Your task to perform on an android device: Open privacy settings Image 0: 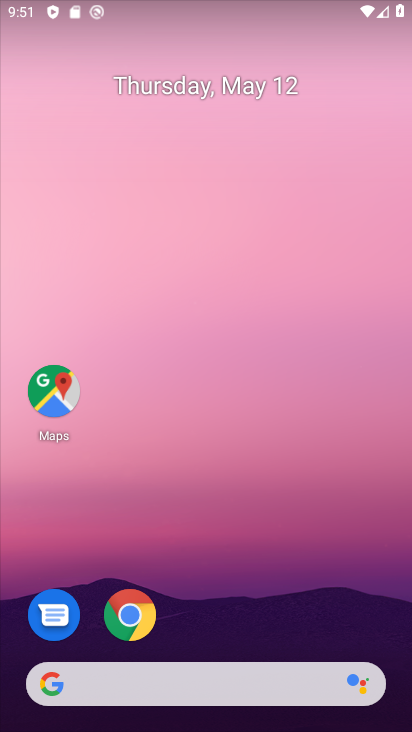
Step 0: drag from (226, 724) to (226, 44)
Your task to perform on an android device: Open privacy settings Image 1: 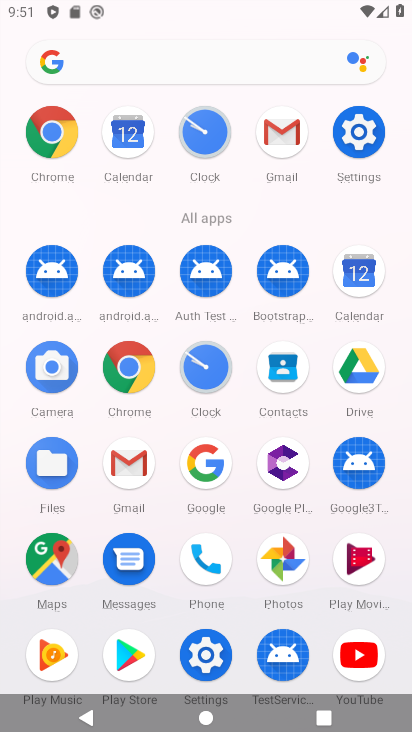
Step 1: click (362, 128)
Your task to perform on an android device: Open privacy settings Image 2: 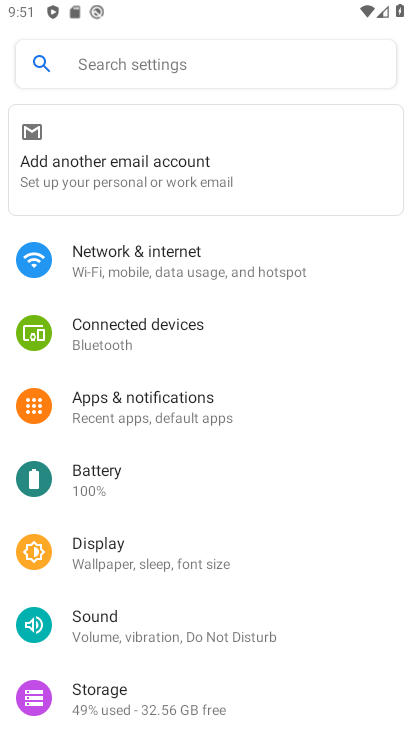
Step 2: drag from (211, 673) to (255, 236)
Your task to perform on an android device: Open privacy settings Image 3: 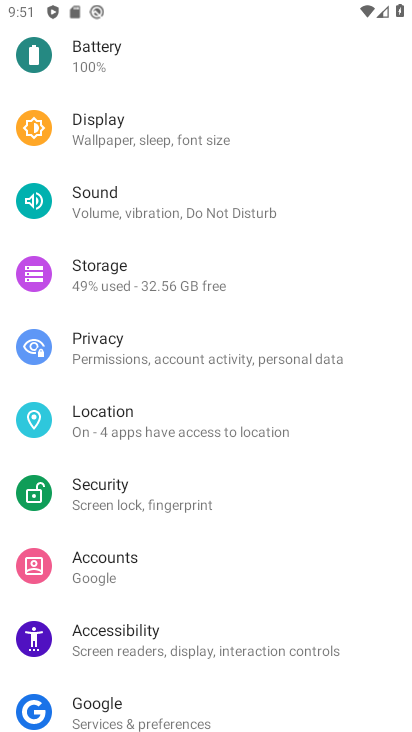
Step 3: click (115, 357)
Your task to perform on an android device: Open privacy settings Image 4: 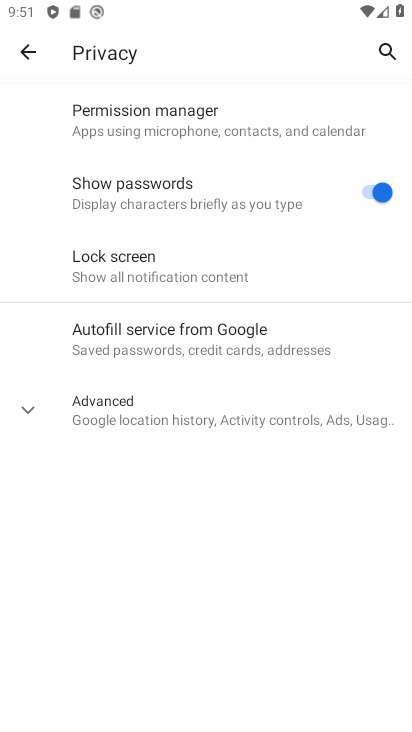
Step 4: task complete